Your task to perform on an android device: snooze an email in the gmail app Image 0: 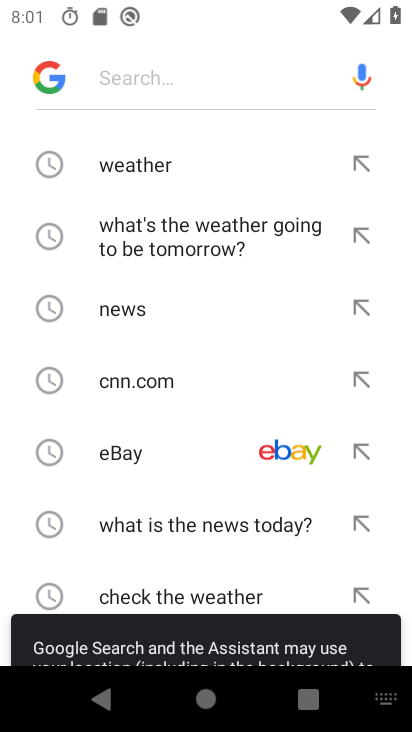
Step 0: press home button
Your task to perform on an android device: snooze an email in the gmail app Image 1: 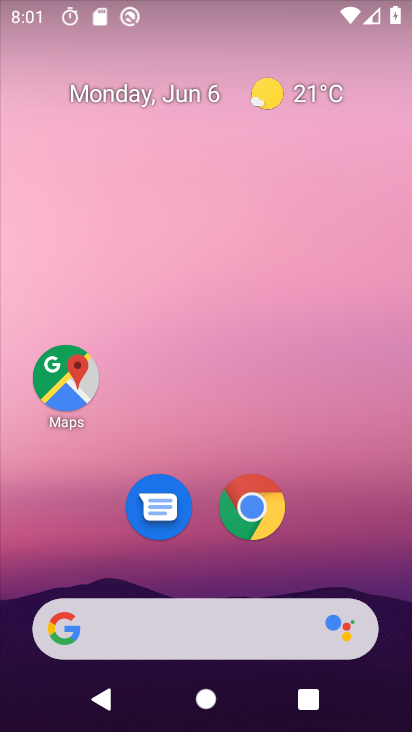
Step 1: drag from (401, 669) to (364, 266)
Your task to perform on an android device: snooze an email in the gmail app Image 2: 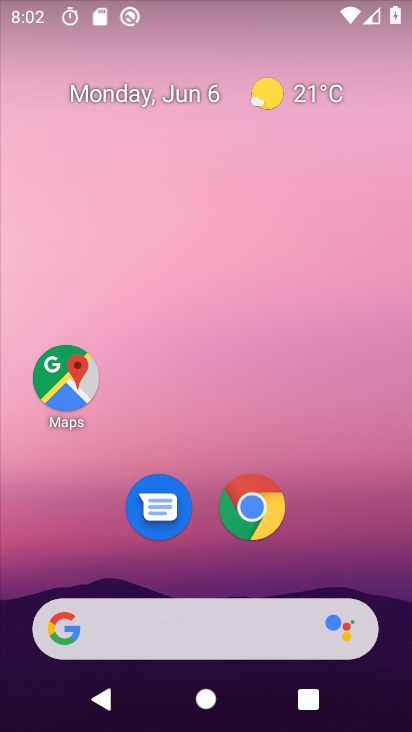
Step 2: drag from (361, 559) to (332, 5)
Your task to perform on an android device: snooze an email in the gmail app Image 3: 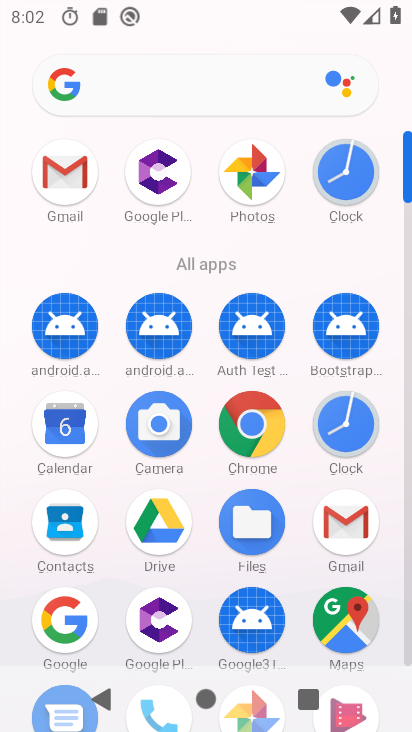
Step 3: click (327, 502)
Your task to perform on an android device: snooze an email in the gmail app Image 4: 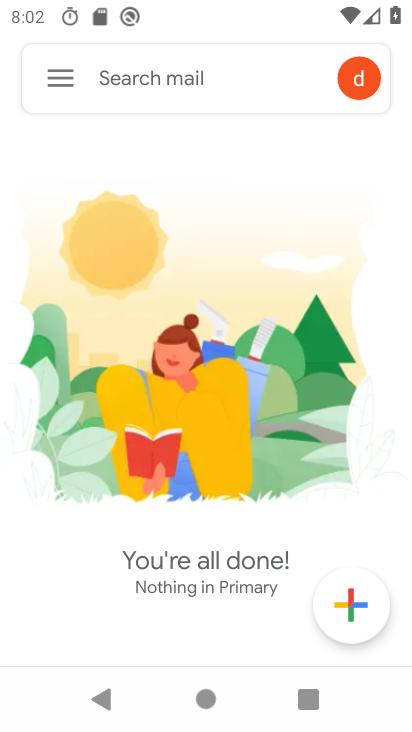
Step 4: click (63, 66)
Your task to perform on an android device: snooze an email in the gmail app Image 5: 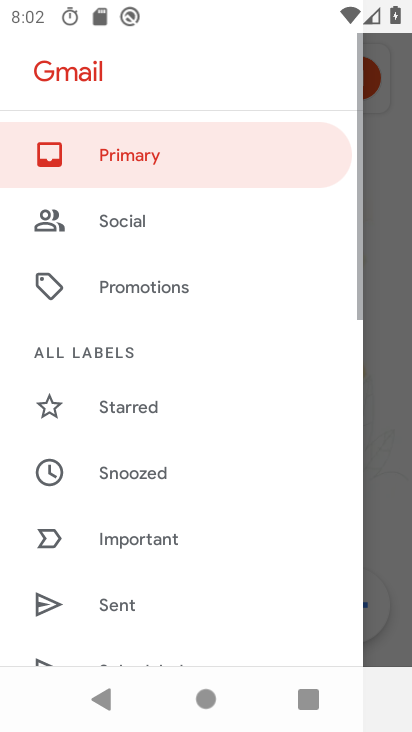
Step 5: task complete